Your task to perform on an android device: Go to battery settings Image 0: 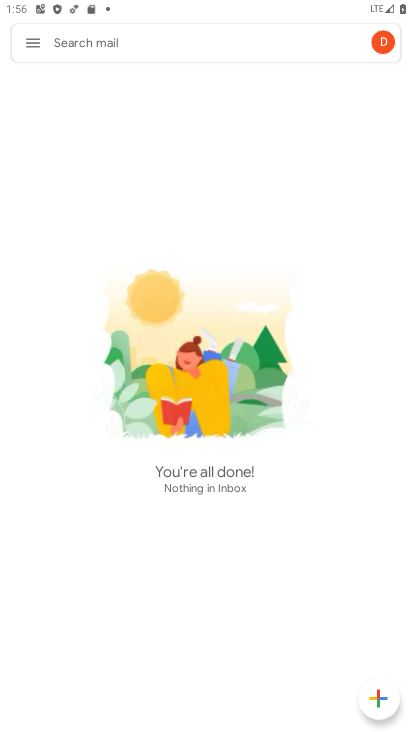
Step 0: press home button
Your task to perform on an android device: Go to battery settings Image 1: 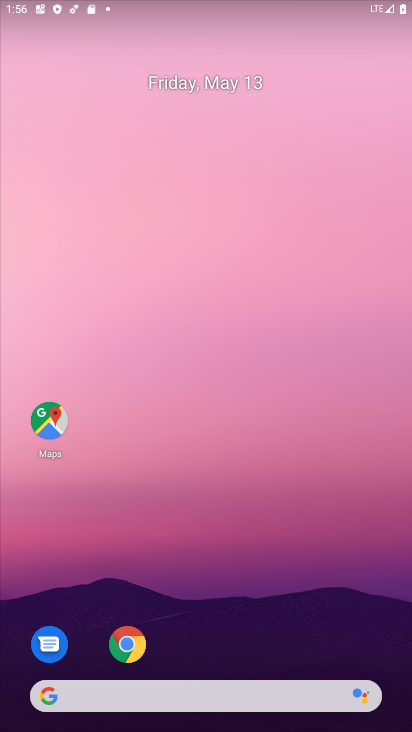
Step 1: drag from (346, 609) to (169, 22)
Your task to perform on an android device: Go to battery settings Image 2: 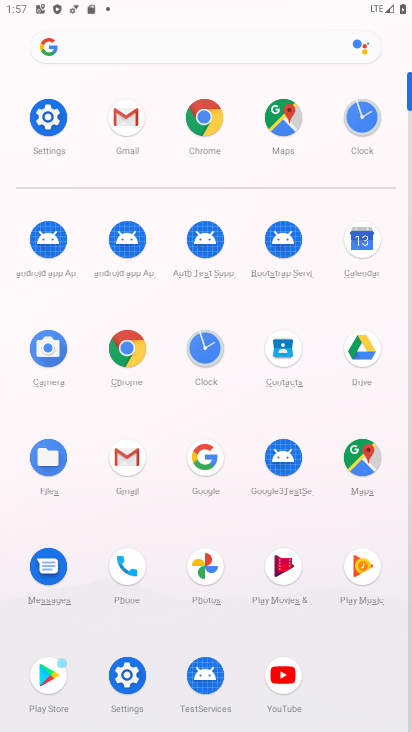
Step 2: click (127, 670)
Your task to perform on an android device: Go to battery settings Image 3: 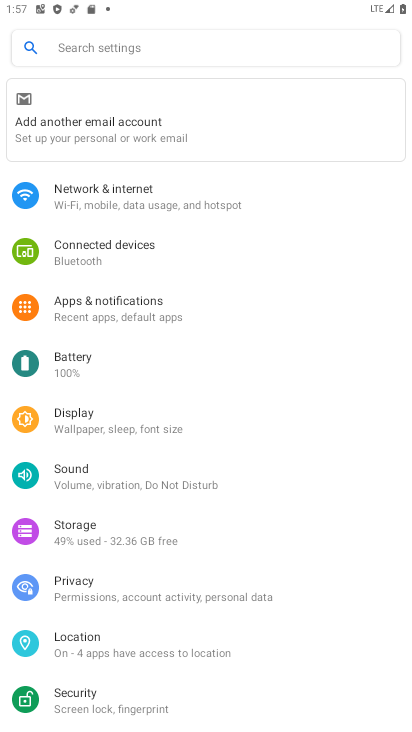
Step 3: click (114, 367)
Your task to perform on an android device: Go to battery settings Image 4: 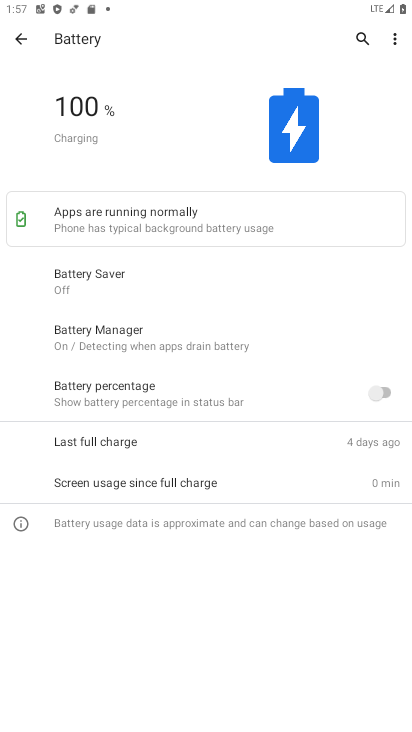
Step 4: task complete